Your task to perform on an android device: Open the calendar app, open the side menu, and click the "Day" option Image 0: 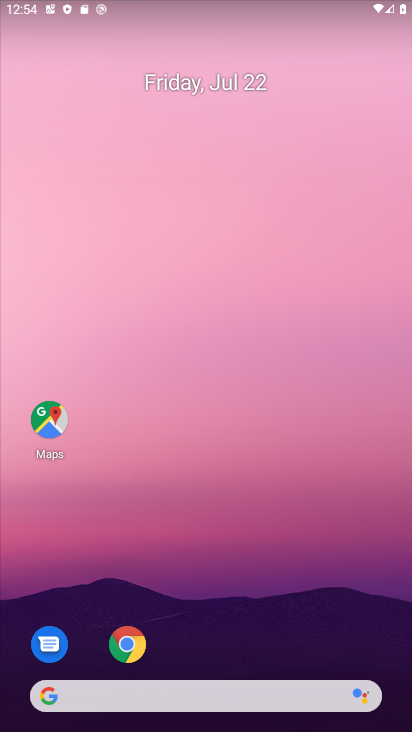
Step 0: press home button
Your task to perform on an android device: Open the calendar app, open the side menu, and click the "Day" option Image 1: 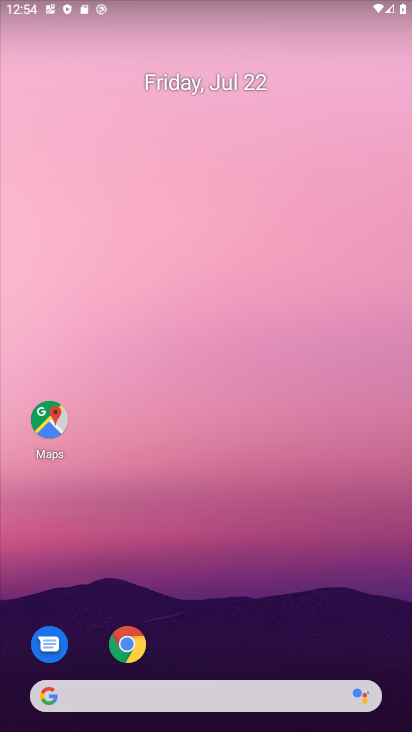
Step 1: drag from (221, 662) to (255, 5)
Your task to perform on an android device: Open the calendar app, open the side menu, and click the "Day" option Image 2: 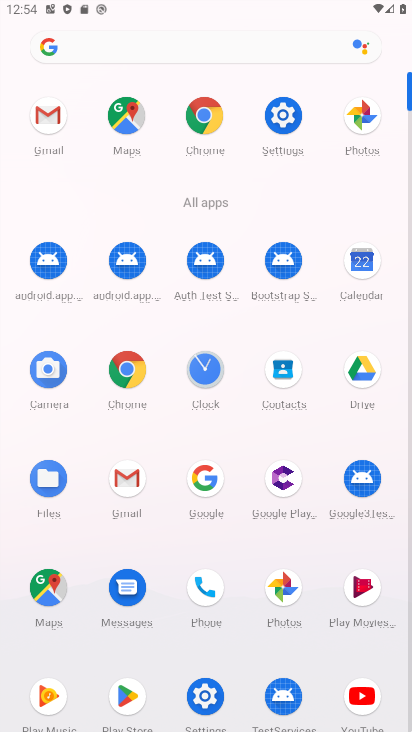
Step 2: click (360, 257)
Your task to perform on an android device: Open the calendar app, open the side menu, and click the "Day" option Image 3: 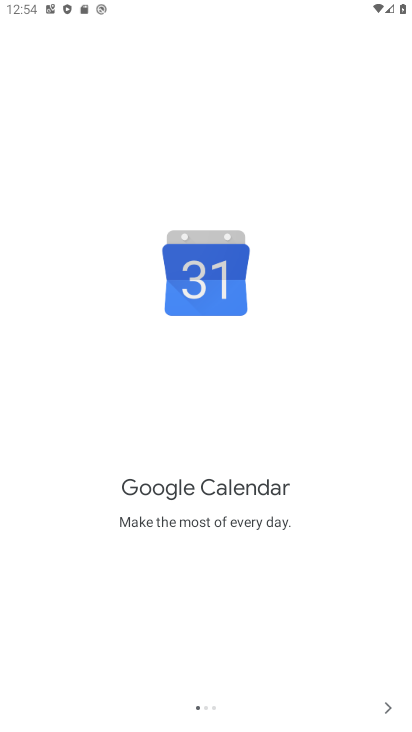
Step 3: click (381, 705)
Your task to perform on an android device: Open the calendar app, open the side menu, and click the "Day" option Image 4: 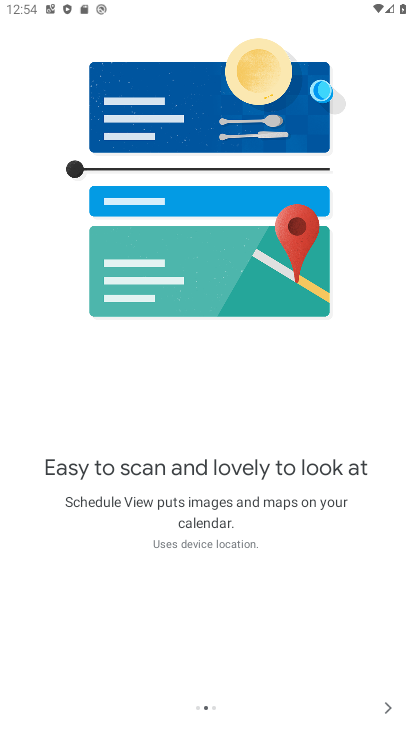
Step 4: click (381, 705)
Your task to perform on an android device: Open the calendar app, open the side menu, and click the "Day" option Image 5: 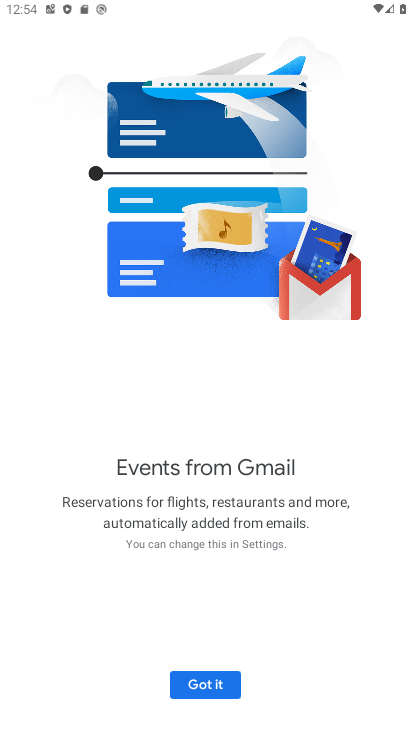
Step 5: click (204, 681)
Your task to perform on an android device: Open the calendar app, open the side menu, and click the "Day" option Image 6: 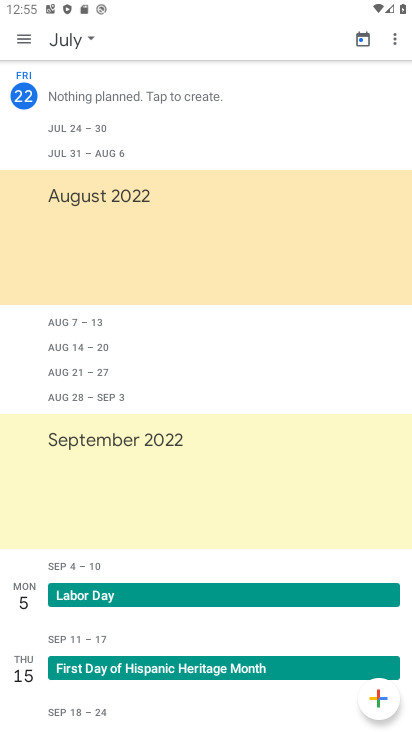
Step 6: click (25, 89)
Your task to perform on an android device: Open the calendar app, open the side menu, and click the "Day" option Image 7: 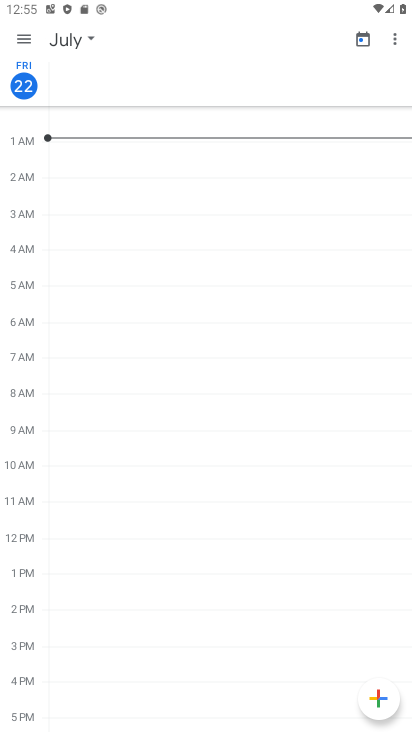
Step 7: task complete